Your task to perform on an android device: Open internet settings Image 0: 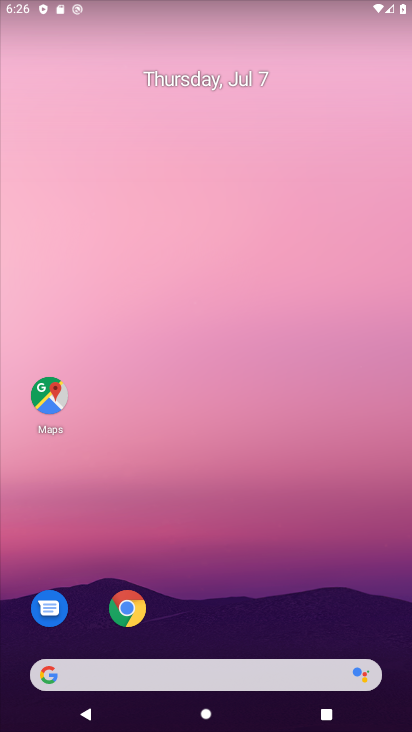
Step 0: drag from (155, 618) to (251, 116)
Your task to perform on an android device: Open internet settings Image 1: 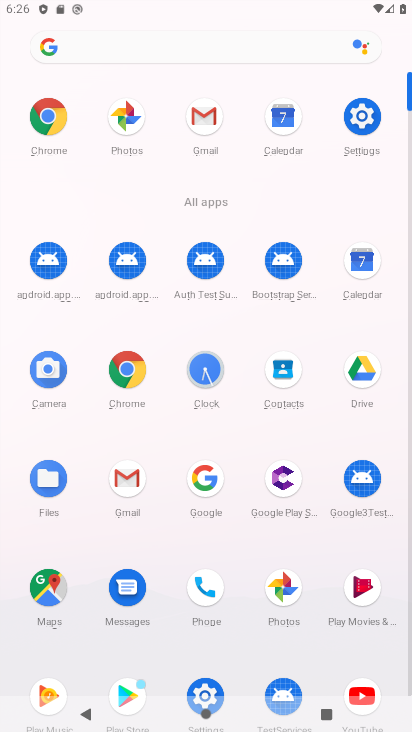
Step 1: click (352, 119)
Your task to perform on an android device: Open internet settings Image 2: 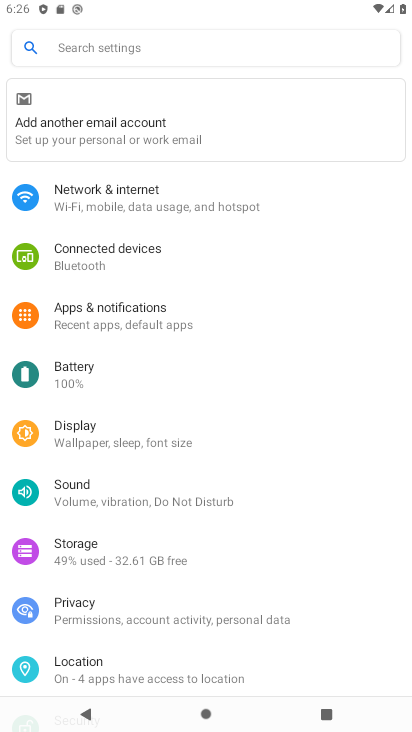
Step 2: click (156, 211)
Your task to perform on an android device: Open internet settings Image 3: 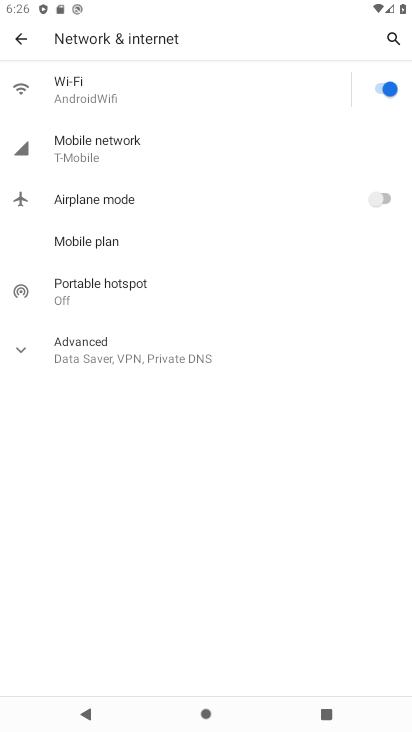
Step 3: task complete